Your task to perform on an android device: Search for vegetarian restaurants on Maps Image 0: 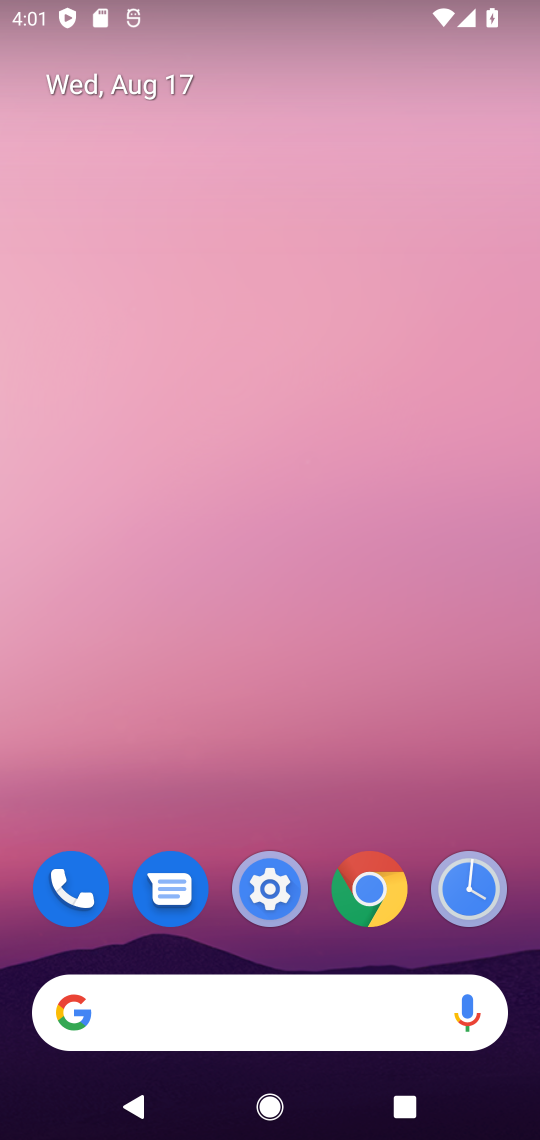
Step 0: drag from (313, 808) to (234, 238)
Your task to perform on an android device: Search for vegetarian restaurants on Maps Image 1: 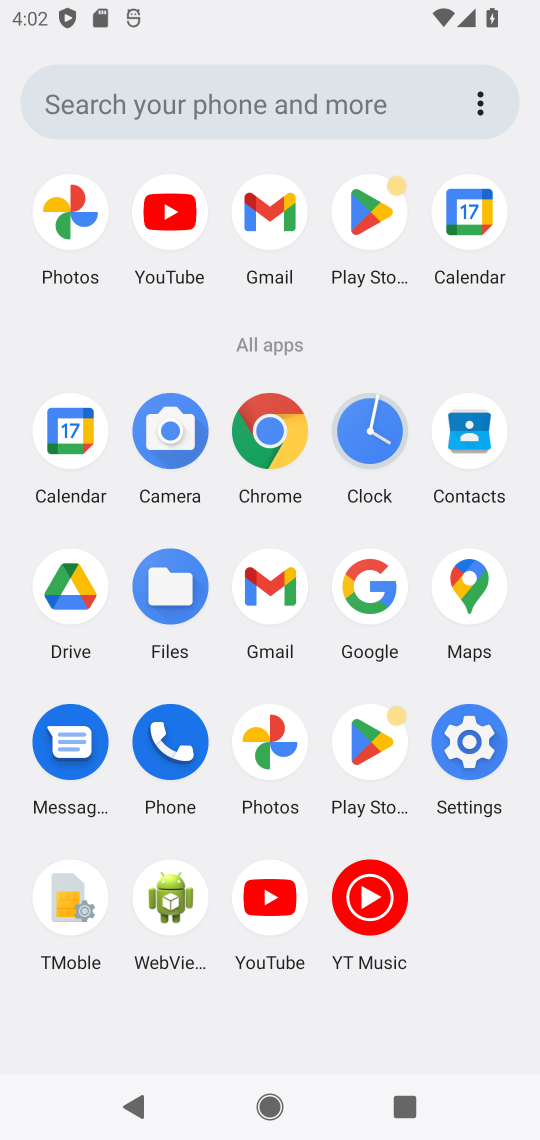
Step 1: click (456, 581)
Your task to perform on an android device: Search for vegetarian restaurants on Maps Image 2: 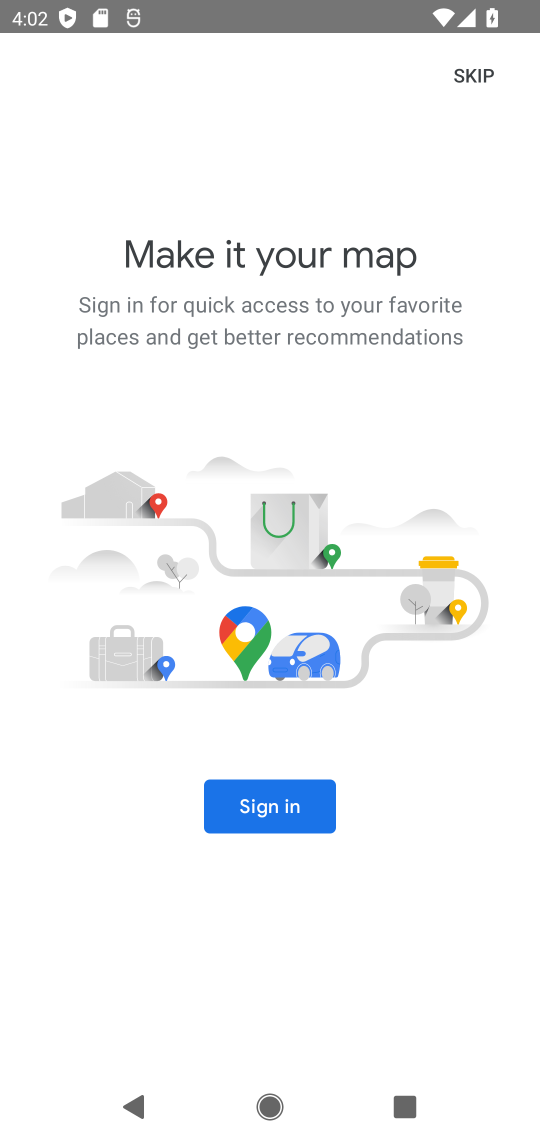
Step 2: click (469, 69)
Your task to perform on an android device: Search for vegetarian restaurants on Maps Image 3: 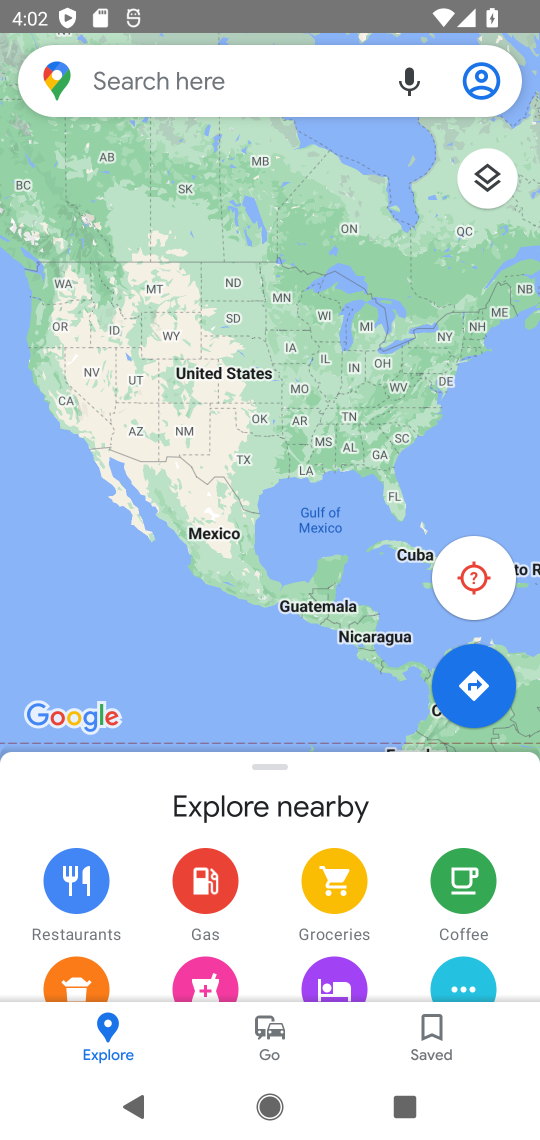
Step 3: click (221, 80)
Your task to perform on an android device: Search for vegetarian restaurants on Maps Image 4: 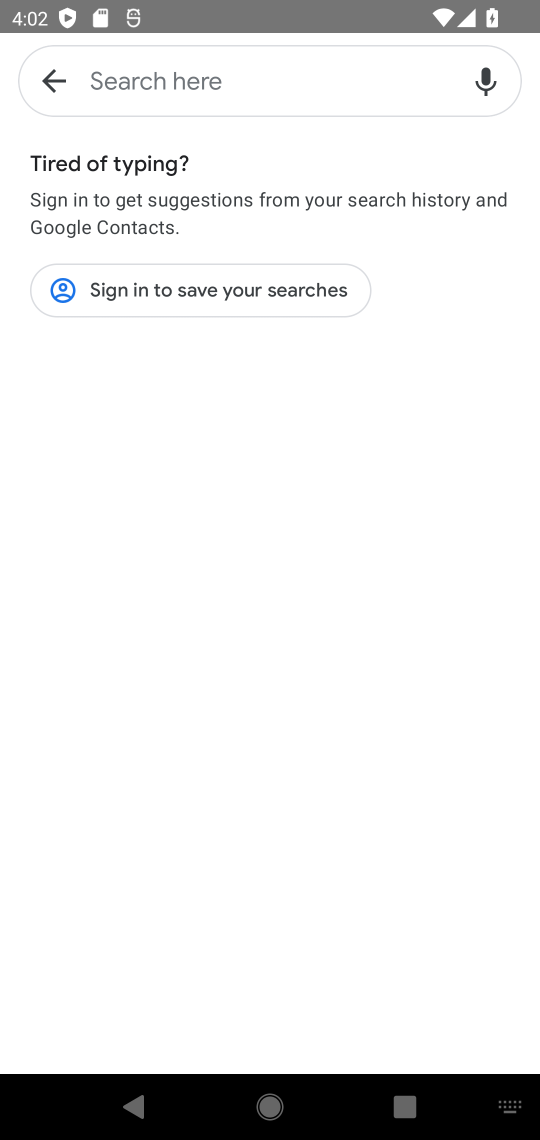
Step 4: type "vegetarian restaurants"
Your task to perform on an android device: Search for vegetarian restaurants on Maps Image 5: 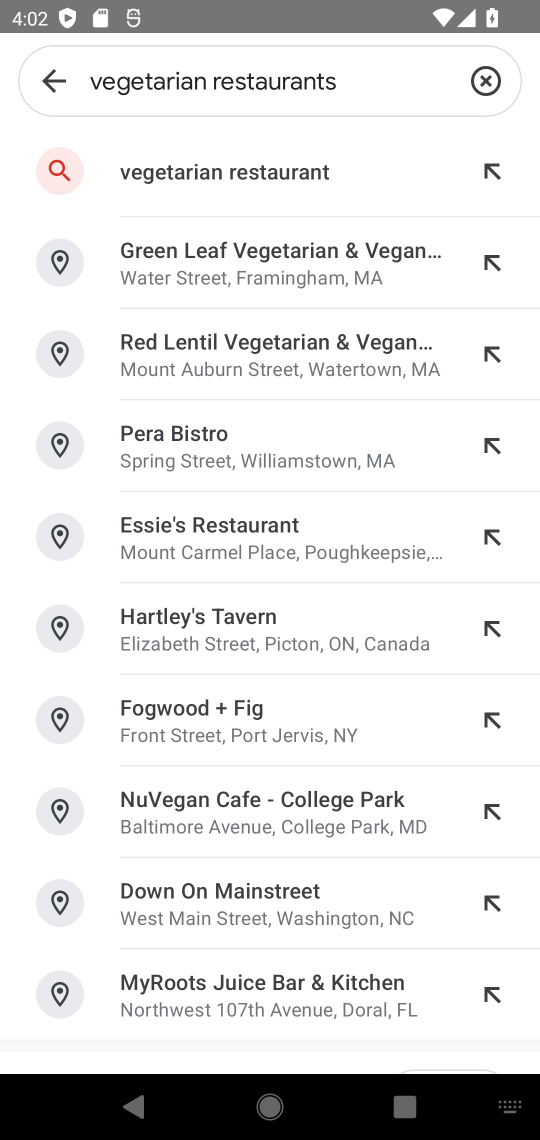
Step 5: click (268, 168)
Your task to perform on an android device: Search for vegetarian restaurants on Maps Image 6: 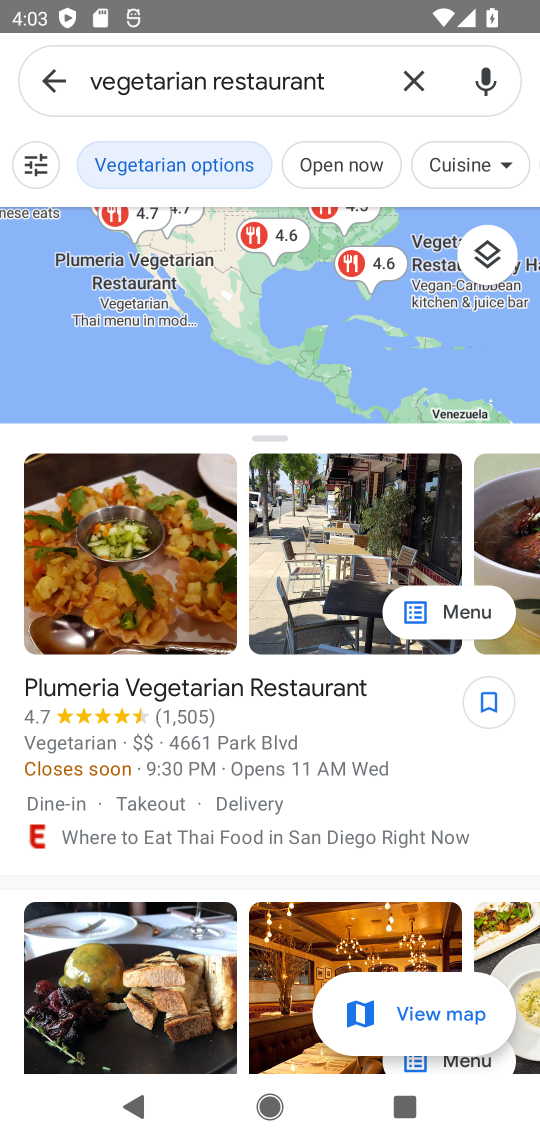
Step 6: task complete